Your task to perform on an android device: turn off priority inbox in the gmail app Image 0: 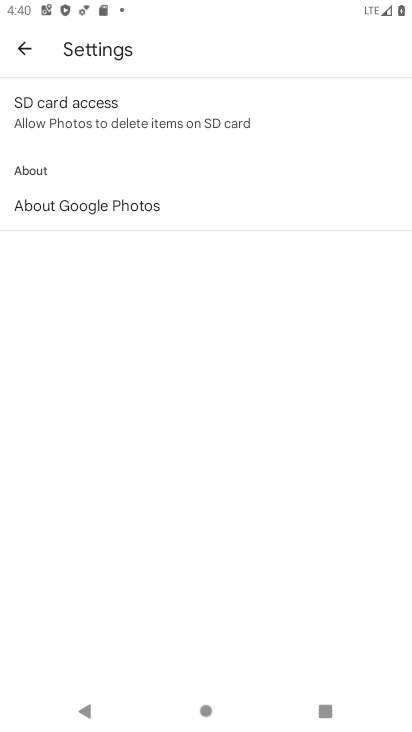
Step 0: press home button
Your task to perform on an android device: turn off priority inbox in the gmail app Image 1: 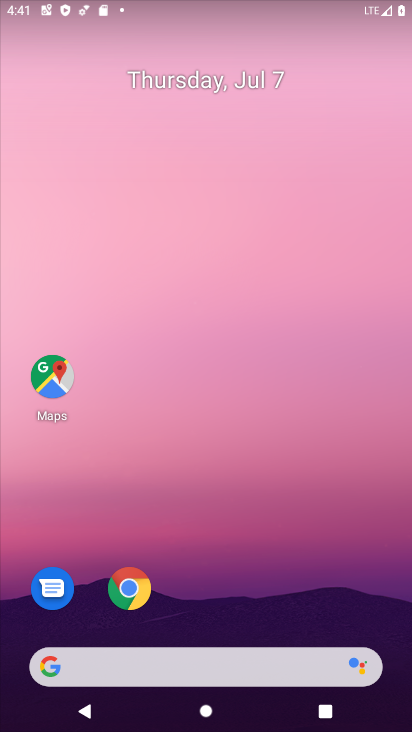
Step 1: drag from (318, 620) to (274, 82)
Your task to perform on an android device: turn off priority inbox in the gmail app Image 2: 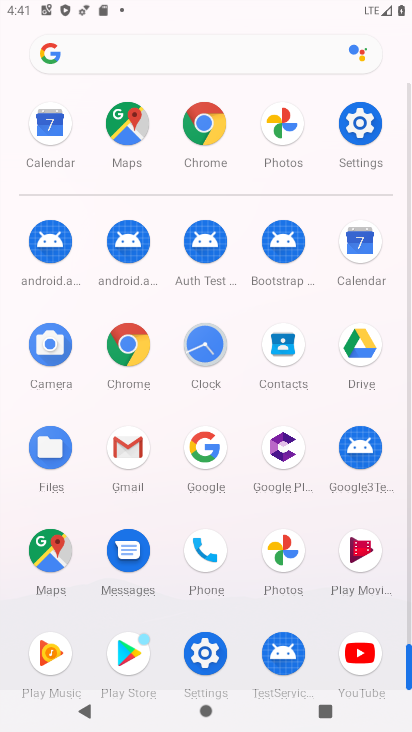
Step 2: click (137, 450)
Your task to perform on an android device: turn off priority inbox in the gmail app Image 3: 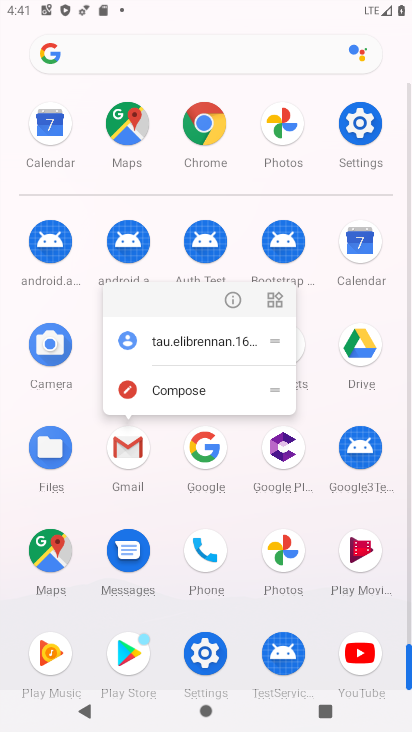
Step 3: click (137, 450)
Your task to perform on an android device: turn off priority inbox in the gmail app Image 4: 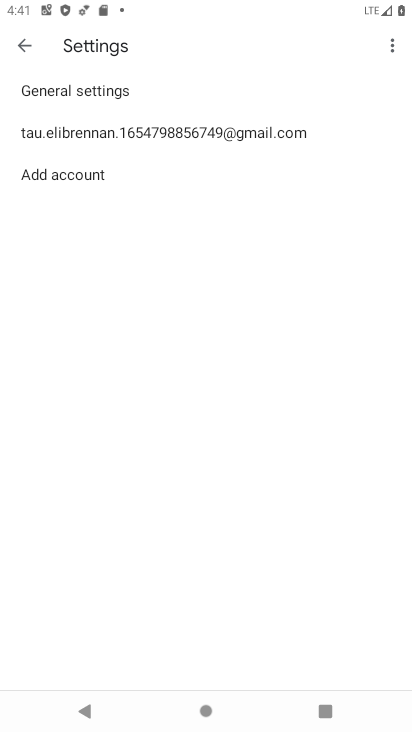
Step 4: press back button
Your task to perform on an android device: turn off priority inbox in the gmail app Image 5: 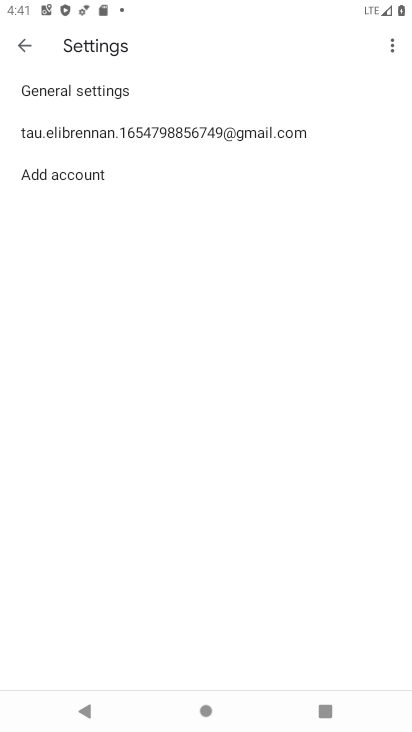
Step 5: click (291, 136)
Your task to perform on an android device: turn off priority inbox in the gmail app Image 6: 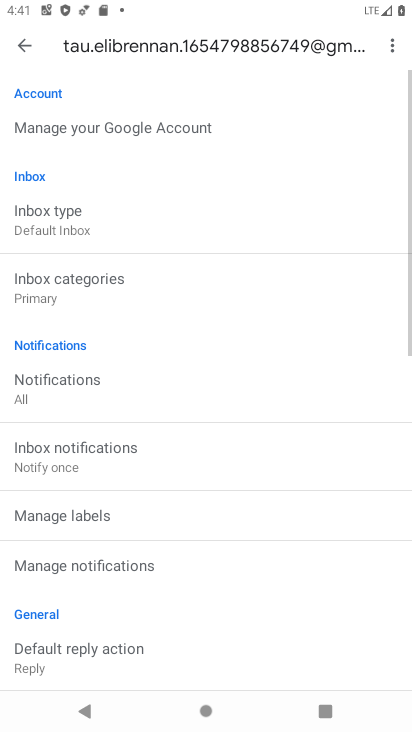
Step 6: click (103, 223)
Your task to perform on an android device: turn off priority inbox in the gmail app Image 7: 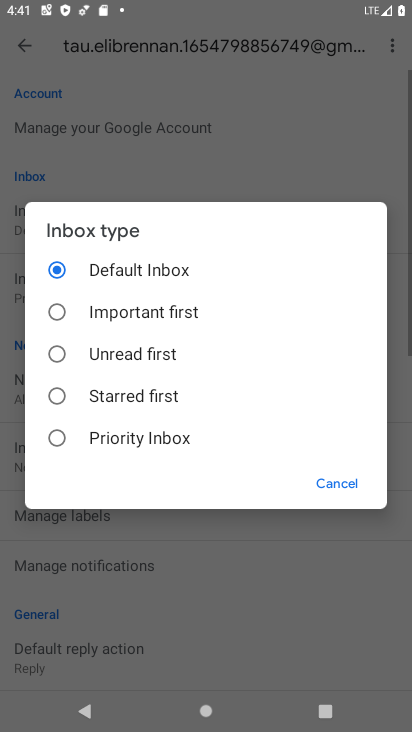
Step 7: click (136, 263)
Your task to perform on an android device: turn off priority inbox in the gmail app Image 8: 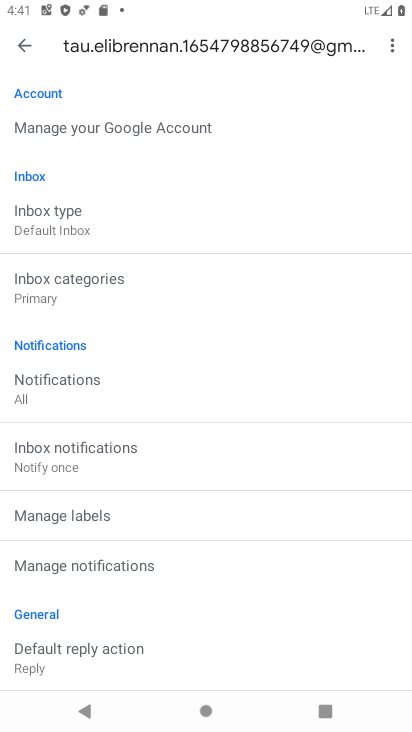
Step 8: task complete